Your task to perform on an android device: change the upload size in google photos Image 0: 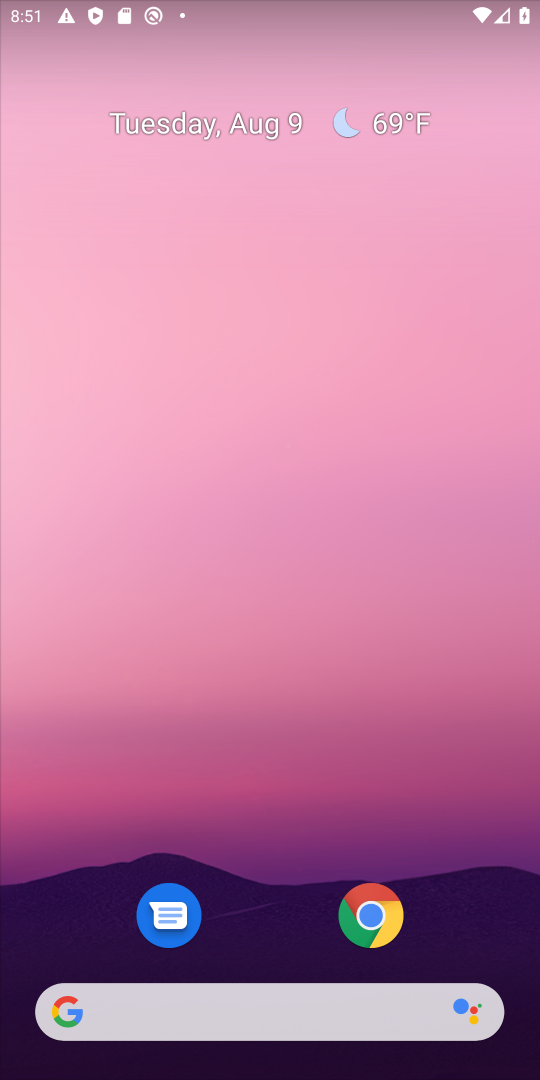
Step 0: drag from (259, 924) to (200, 120)
Your task to perform on an android device: change the upload size in google photos Image 1: 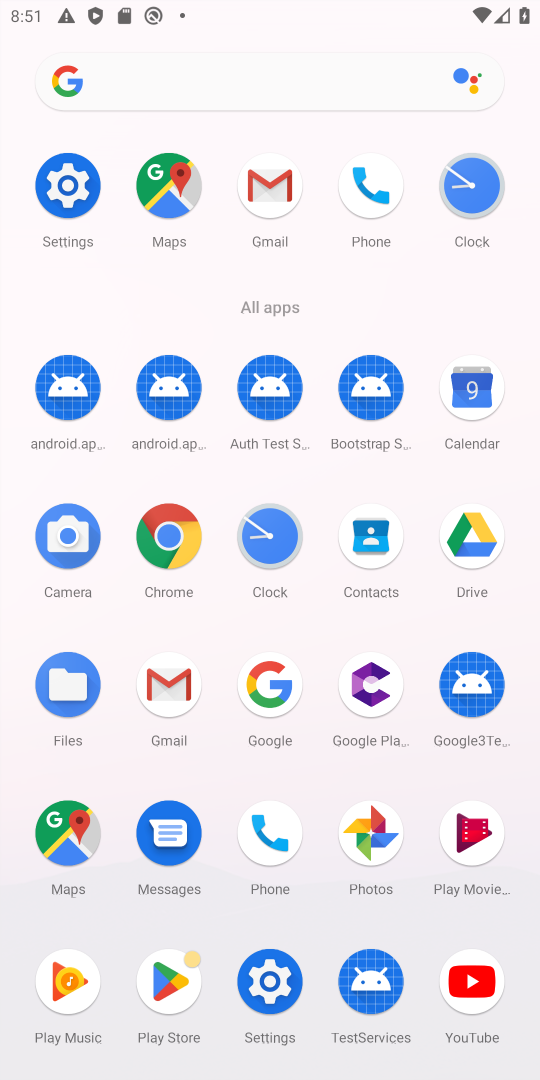
Step 1: click (356, 828)
Your task to perform on an android device: change the upload size in google photos Image 2: 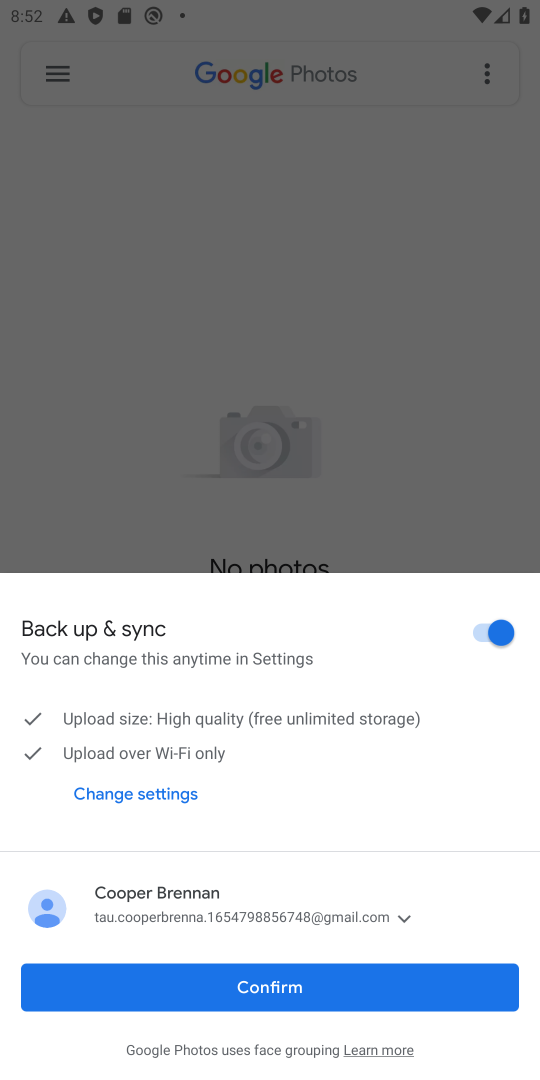
Step 2: click (151, 797)
Your task to perform on an android device: change the upload size in google photos Image 3: 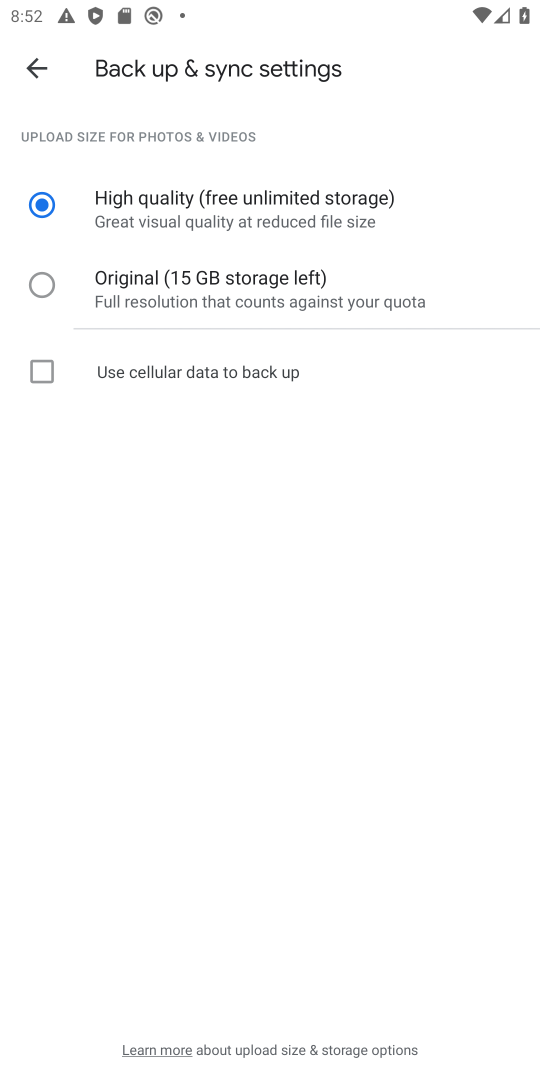
Step 3: click (45, 282)
Your task to perform on an android device: change the upload size in google photos Image 4: 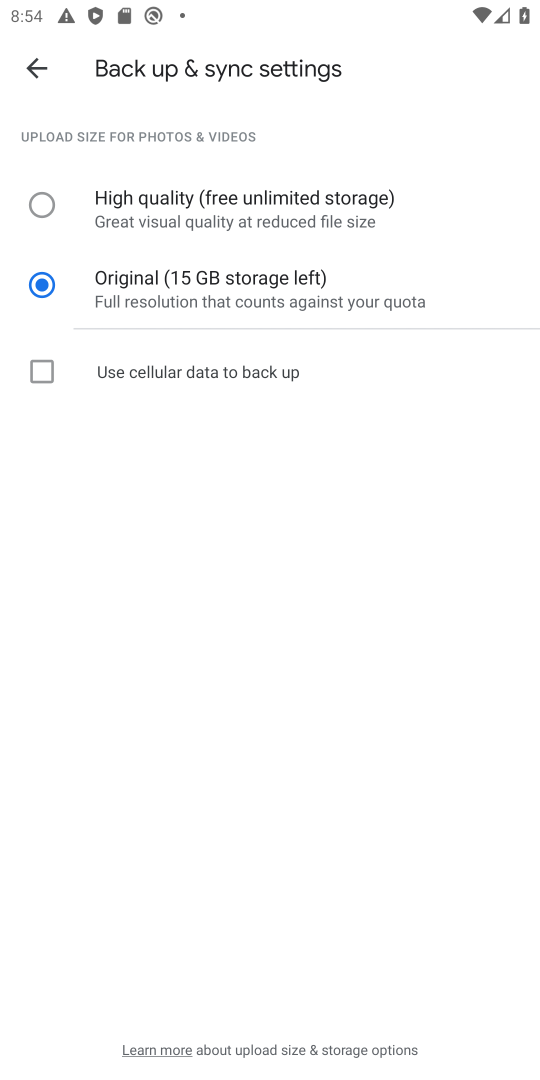
Step 4: task complete